Your task to perform on an android device: change the clock display to analog Image 0: 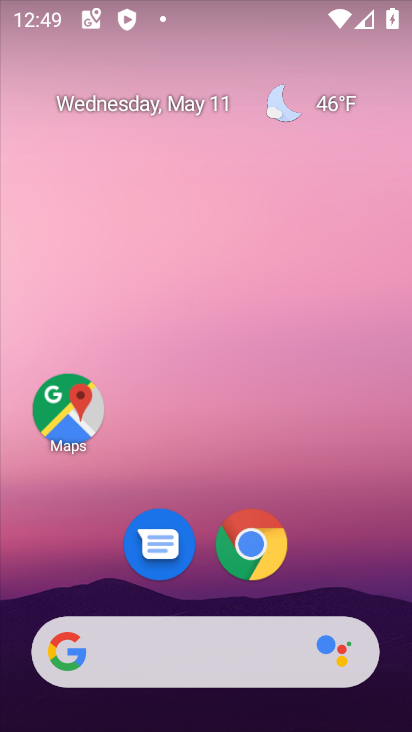
Step 0: drag from (387, 603) to (317, 58)
Your task to perform on an android device: change the clock display to analog Image 1: 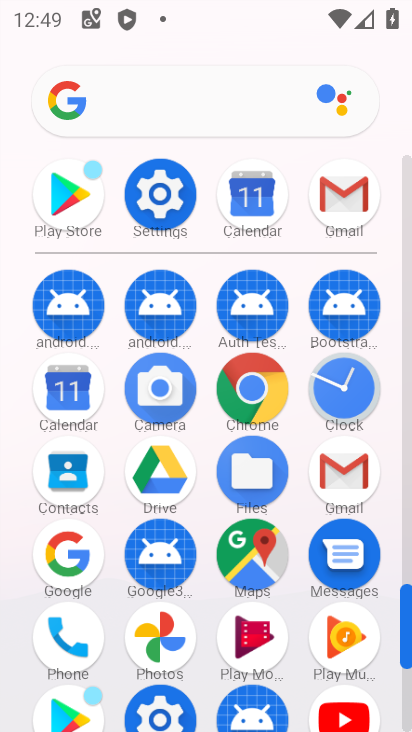
Step 1: click (343, 385)
Your task to perform on an android device: change the clock display to analog Image 2: 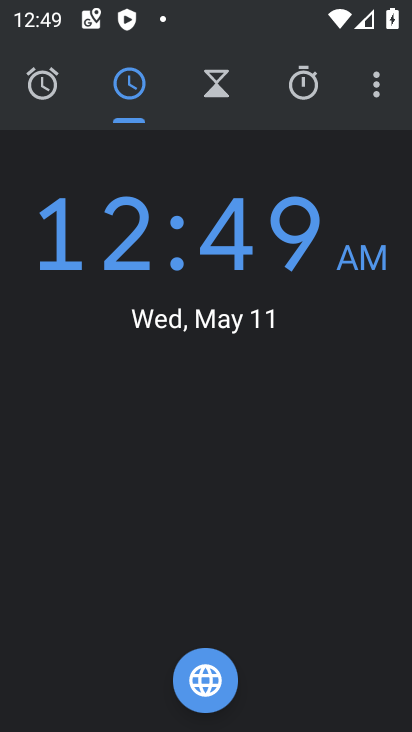
Step 2: click (372, 90)
Your task to perform on an android device: change the clock display to analog Image 3: 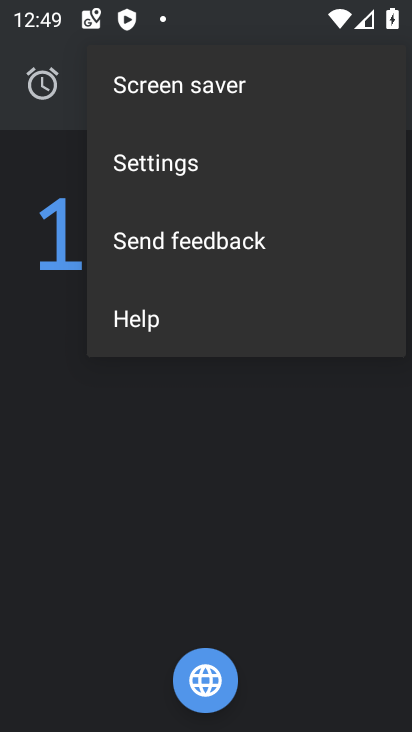
Step 3: click (157, 163)
Your task to perform on an android device: change the clock display to analog Image 4: 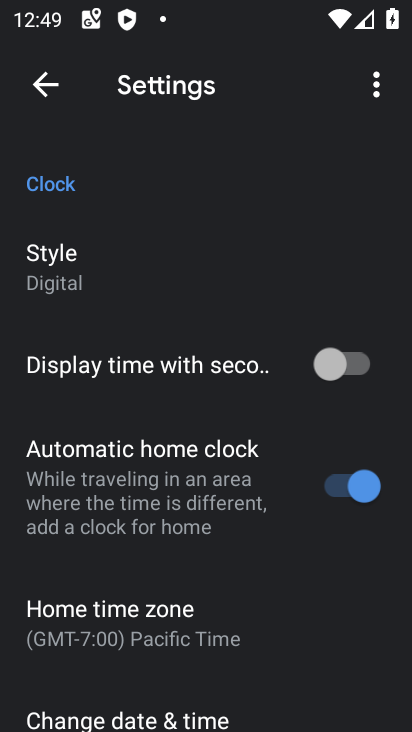
Step 4: click (59, 270)
Your task to perform on an android device: change the clock display to analog Image 5: 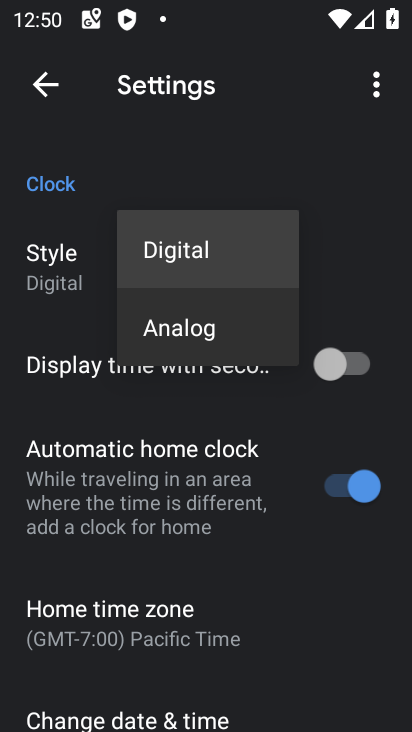
Step 5: click (175, 329)
Your task to perform on an android device: change the clock display to analog Image 6: 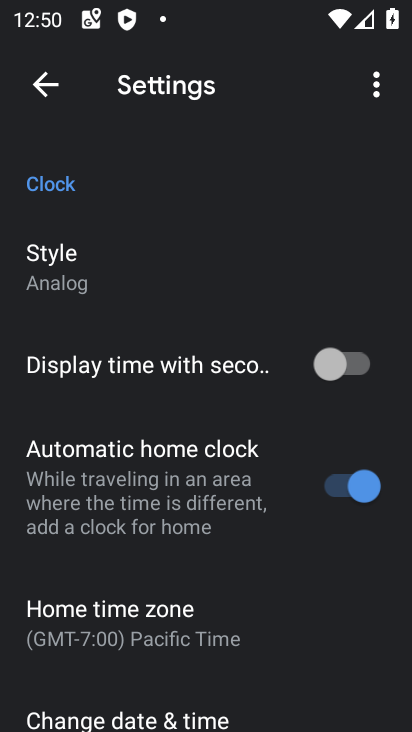
Step 6: task complete